Your task to perform on an android device: Go to privacy settings Image 0: 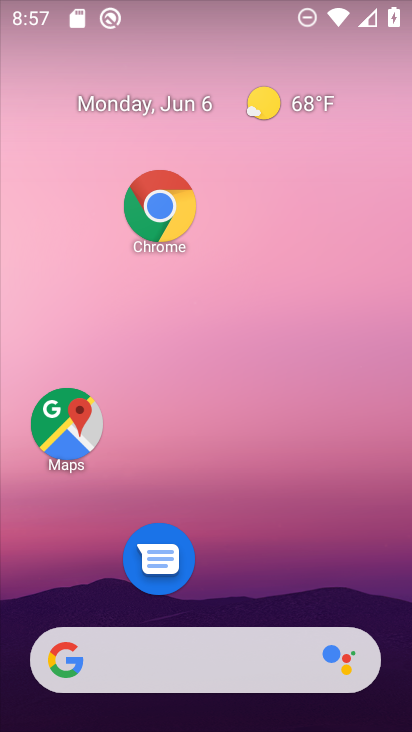
Step 0: drag from (307, 631) to (215, 206)
Your task to perform on an android device: Go to privacy settings Image 1: 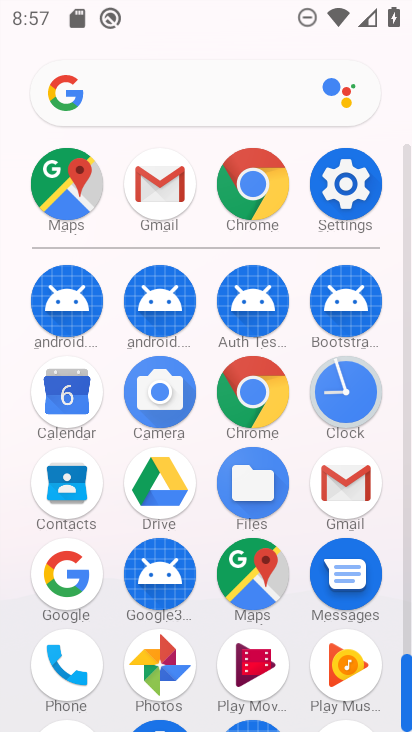
Step 1: click (339, 192)
Your task to perform on an android device: Go to privacy settings Image 2: 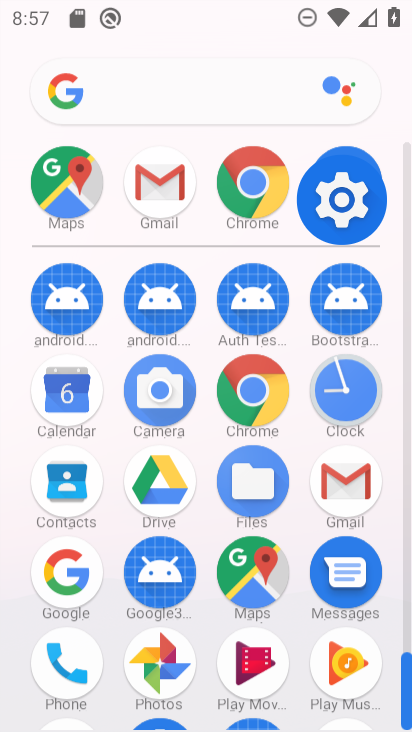
Step 2: click (340, 193)
Your task to perform on an android device: Go to privacy settings Image 3: 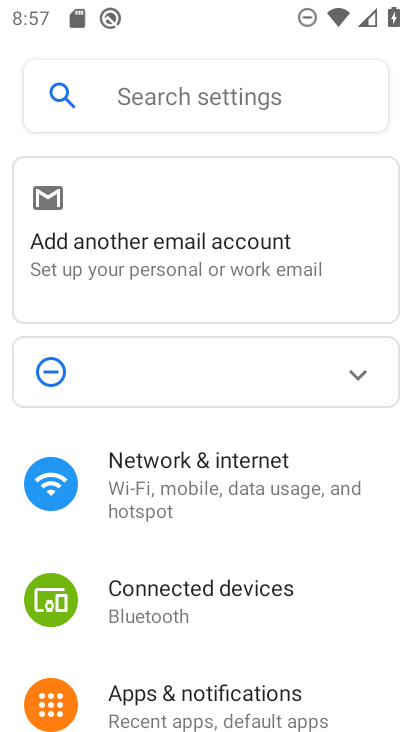
Step 3: drag from (253, 510) to (165, 194)
Your task to perform on an android device: Go to privacy settings Image 4: 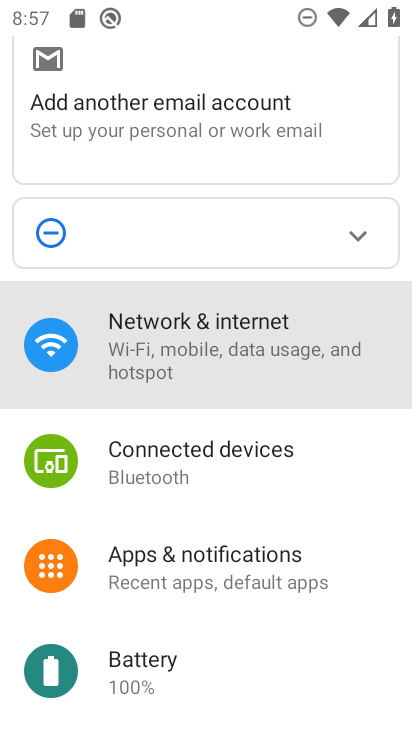
Step 4: drag from (202, 652) to (178, 326)
Your task to perform on an android device: Go to privacy settings Image 5: 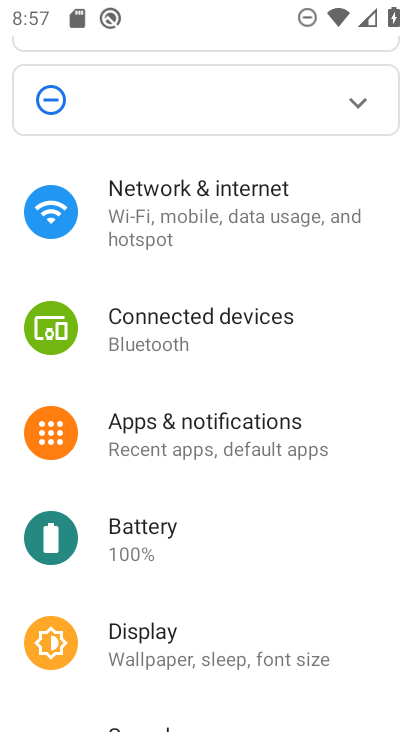
Step 5: drag from (227, 571) to (186, 300)
Your task to perform on an android device: Go to privacy settings Image 6: 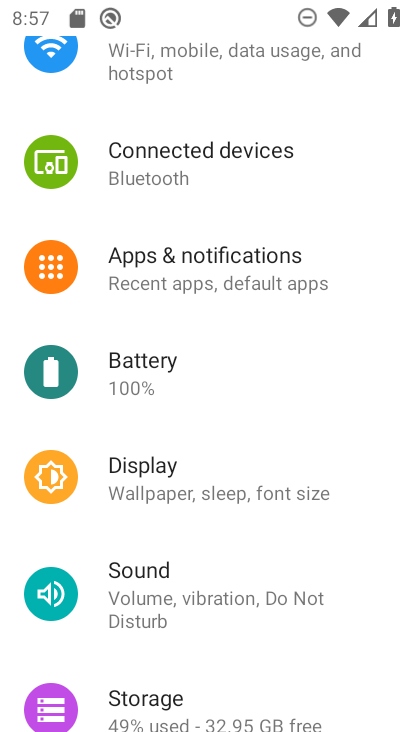
Step 6: drag from (225, 623) to (156, 421)
Your task to perform on an android device: Go to privacy settings Image 7: 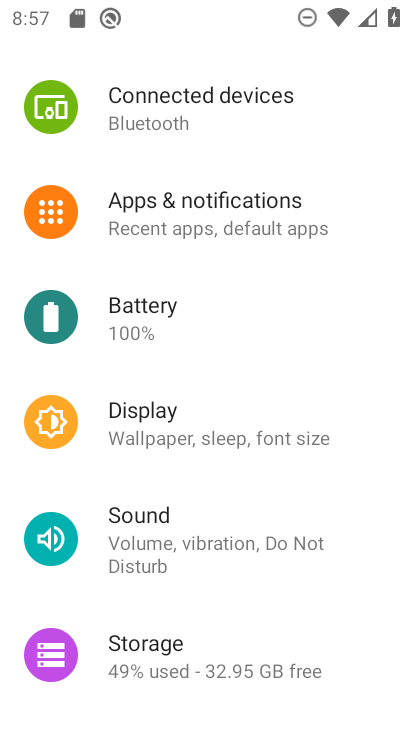
Step 7: drag from (193, 451) to (161, 292)
Your task to perform on an android device: Go to privacy settings Image 8: 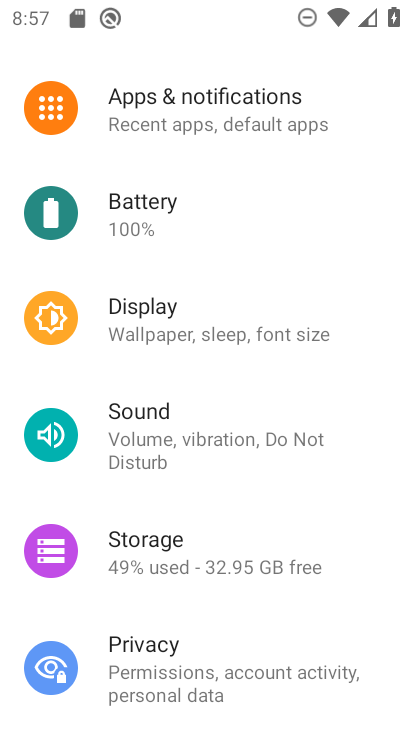
Step 8: drag from (201, 574) to (178, 220)
Your task to perform on an android device: Go to privacy settings Image 9: 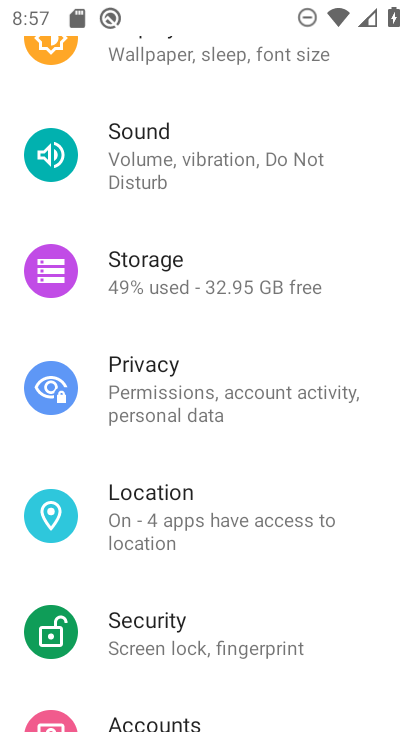
Step 9: drag from (282, 479) to (240, 287)
Your task to perform on an android device: Go to privacy settings Image 10: 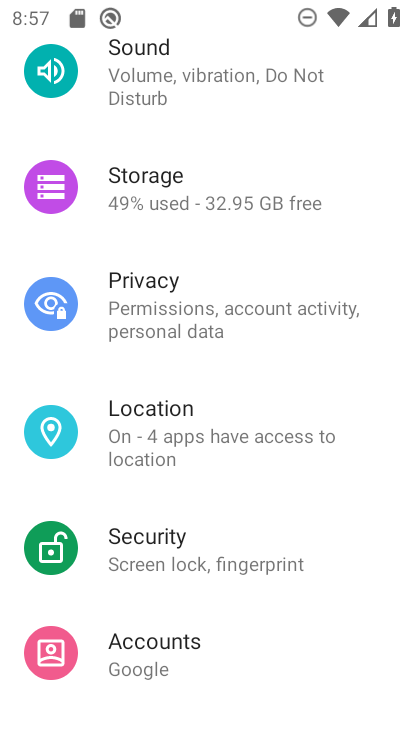
Step 10: drag from (211, 533) to (232, 262)
Your task to perform on an android device: Go to privacy settings Image 11: 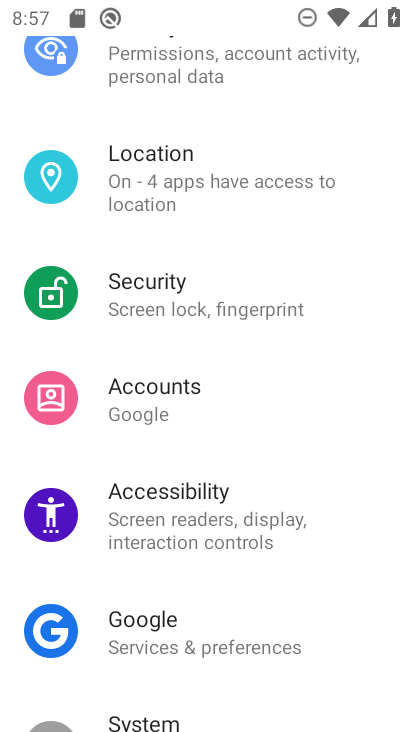
Step 11: drag from (188, 457) to (146, 238)
Your task to perform on an android device: Go to privacy settings Image 12: 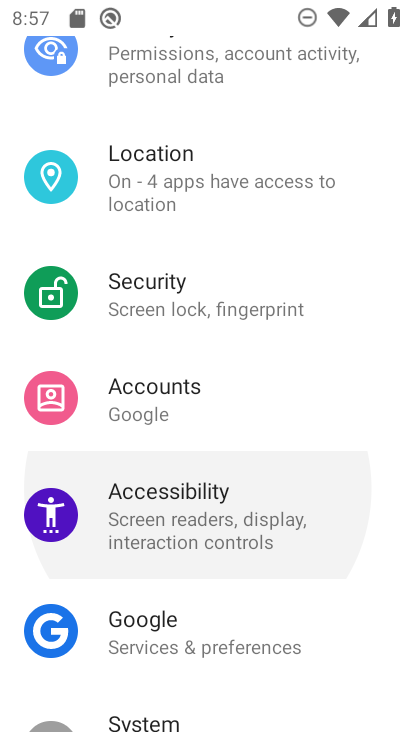
Step 12: drag from (201, 560) to (195, 344)
Your task to perform on an android device: Go to privacy settings Image 13: 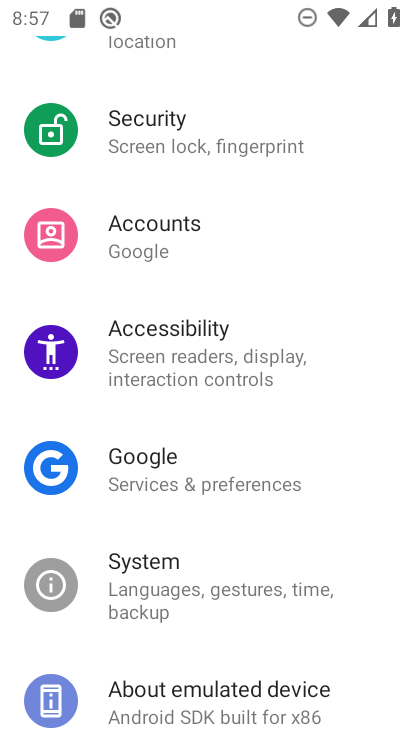
Step 13: drag from (180, 355) to (209, 564)
Your task to perform on an android device: Go to privacy settings Image 14: 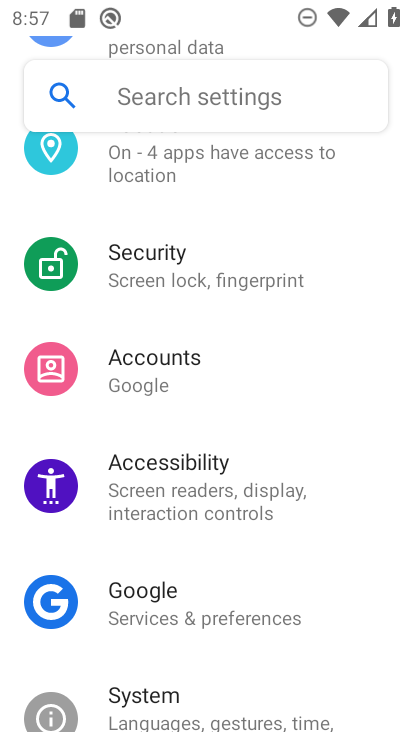
Step 14: drag from (135, 221) to (144, 547)
Your task to perform on an android device: Go to privacy settings Image 15: 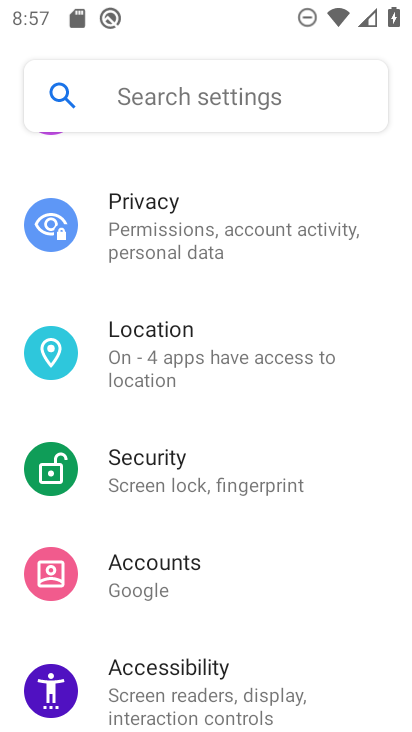
Step 15: drag from (176, 293) to (187, 569)
Your task to perform on an android device: Go to privacy settings Image 16: 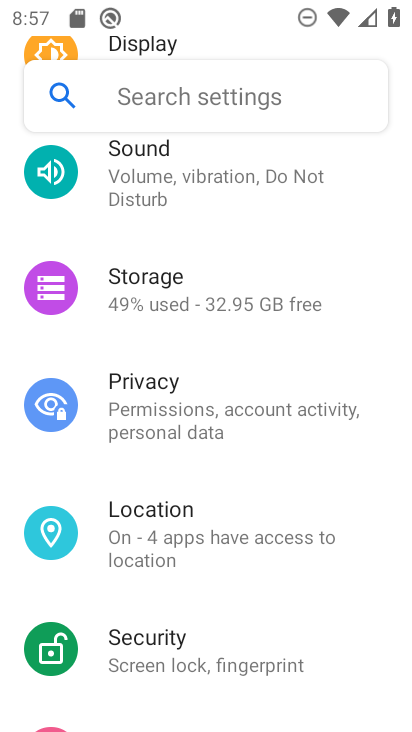
Step 16: click (141, 377)
Your task to perform on an android device: Go to privacy settings Image 17: 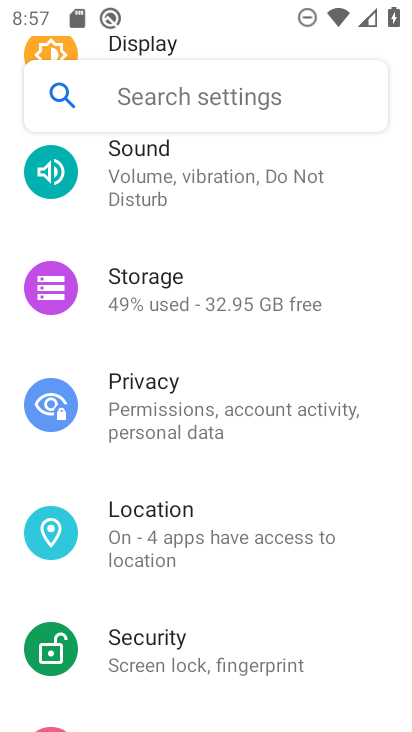
Step 17: click (142, 383)
Your task to perform on an android device: Go to privacy settings Image 18: 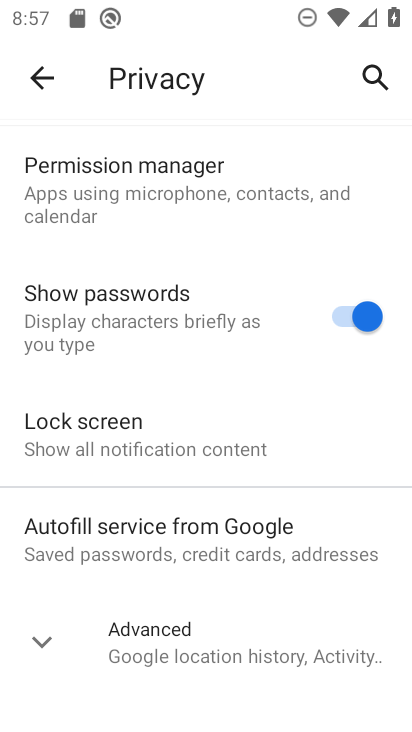
Step 18: task complete